Your task to perform on an android device: Go to calendar. Show me events next week Image 0: 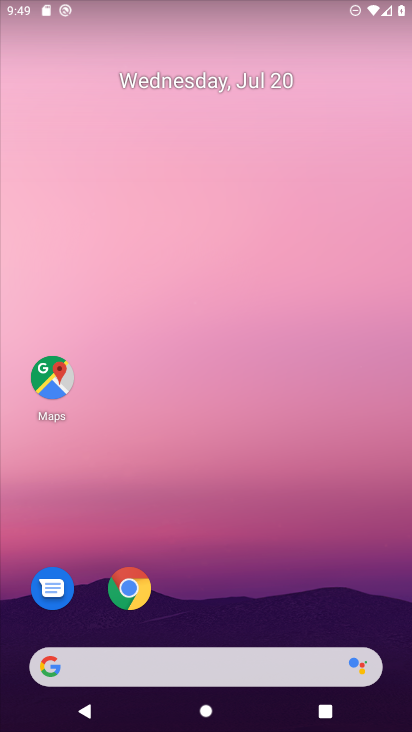
Step 0: click (185, 82)
Your task to perform on an android device: Go to calendar. Show me events next week Image 1: 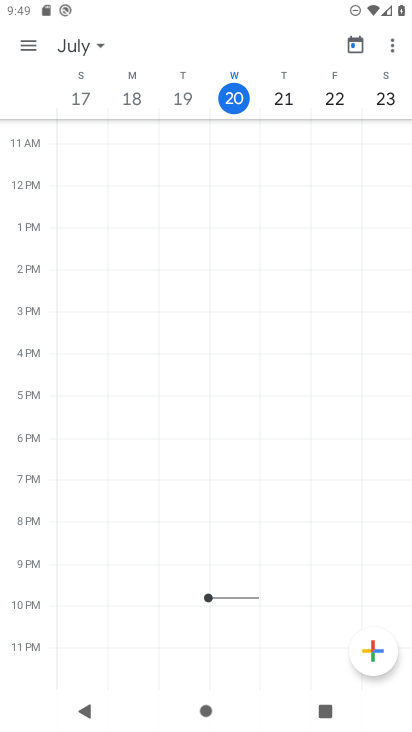
Step 1: click (89, 57)
Your task to perform on an android device: Go to calendar. Show me events next week Image 2: 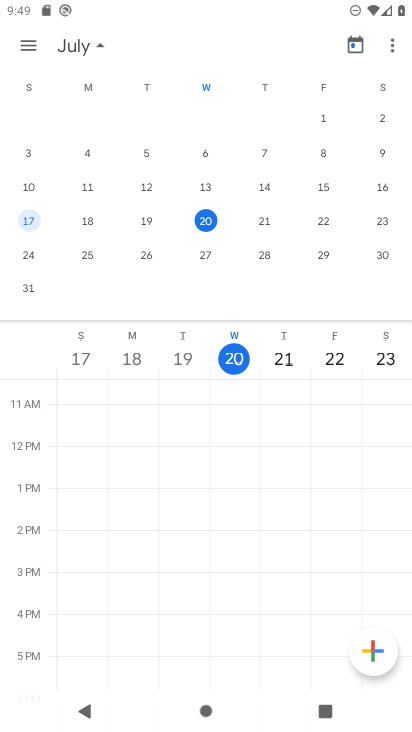
Step 2: click (214, 241)
Your task to perform on an android device: Go to calendar. Show me events next week Image 3: 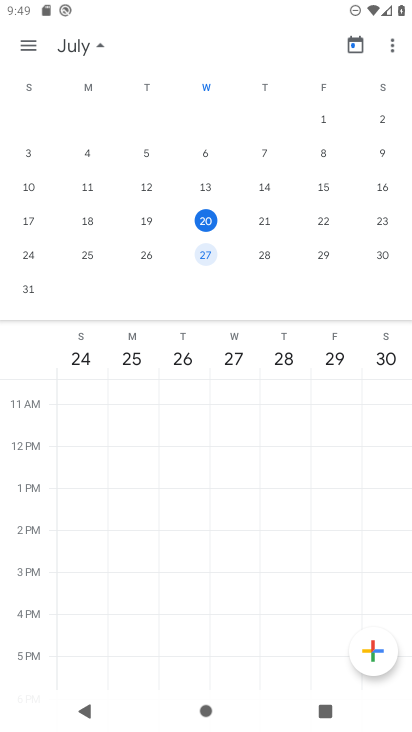
Step 3: task complete